Your task to perform on an android device: install app "Pinterest" Image 0: 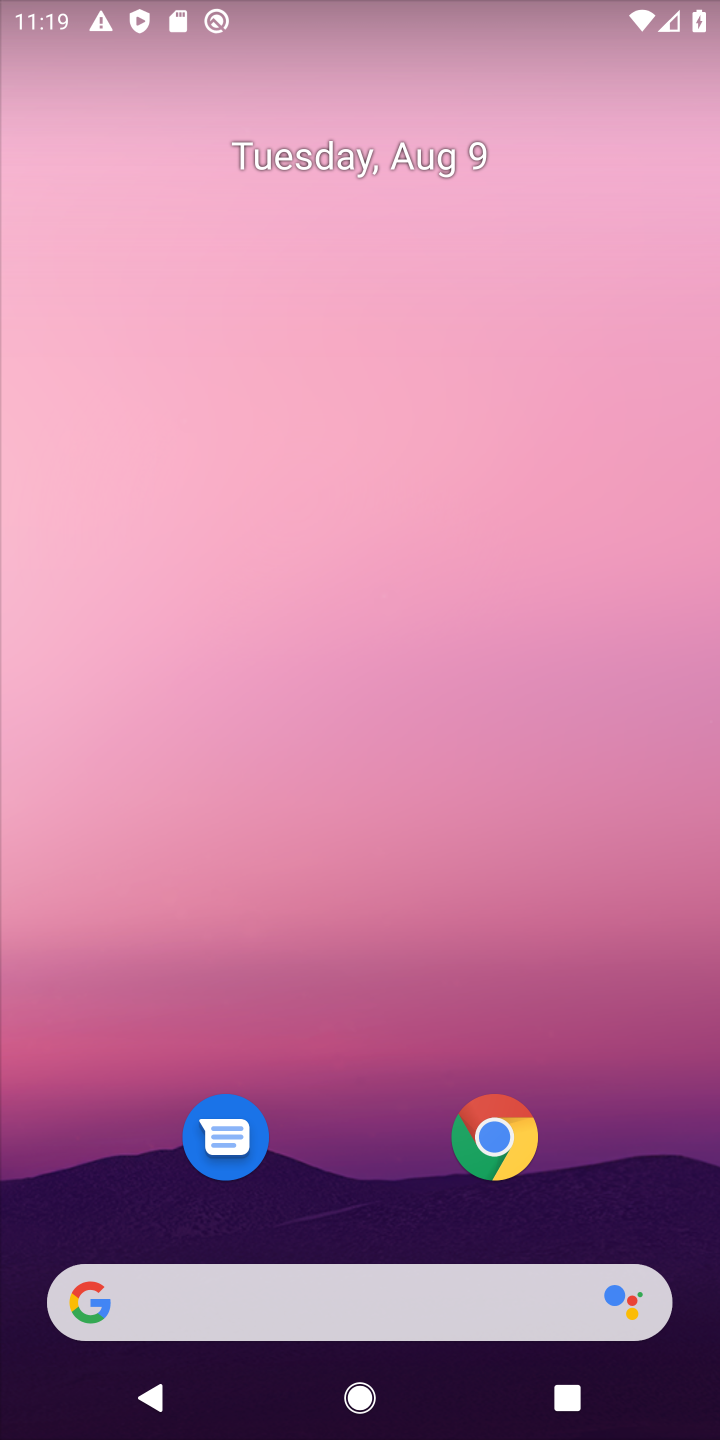
Step 0: drag from (657, 1200) to (295, 106)
Your task to perform on an android device: install app "Pinterest" Image 1: 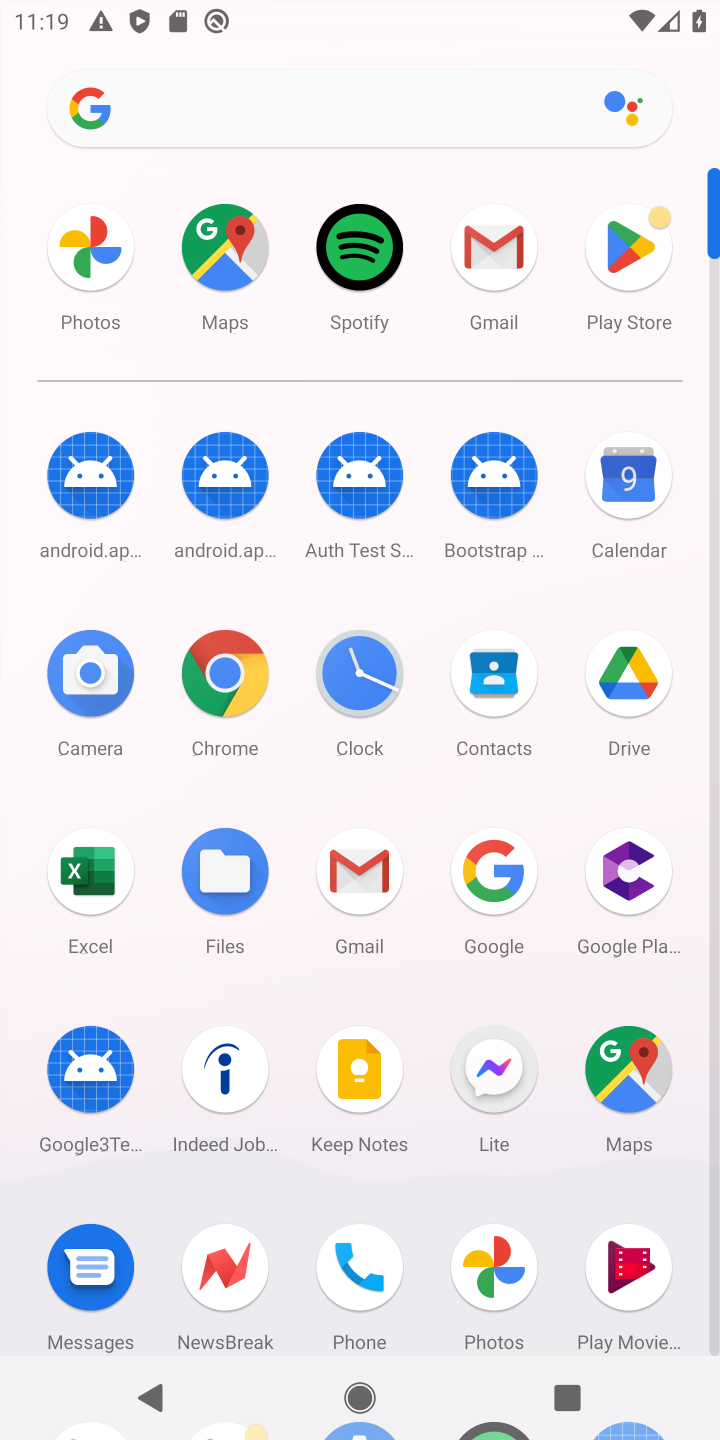
Step 1: click (614, 254)
Your task to perform on an android device: install app "Pinterest" Image 2: 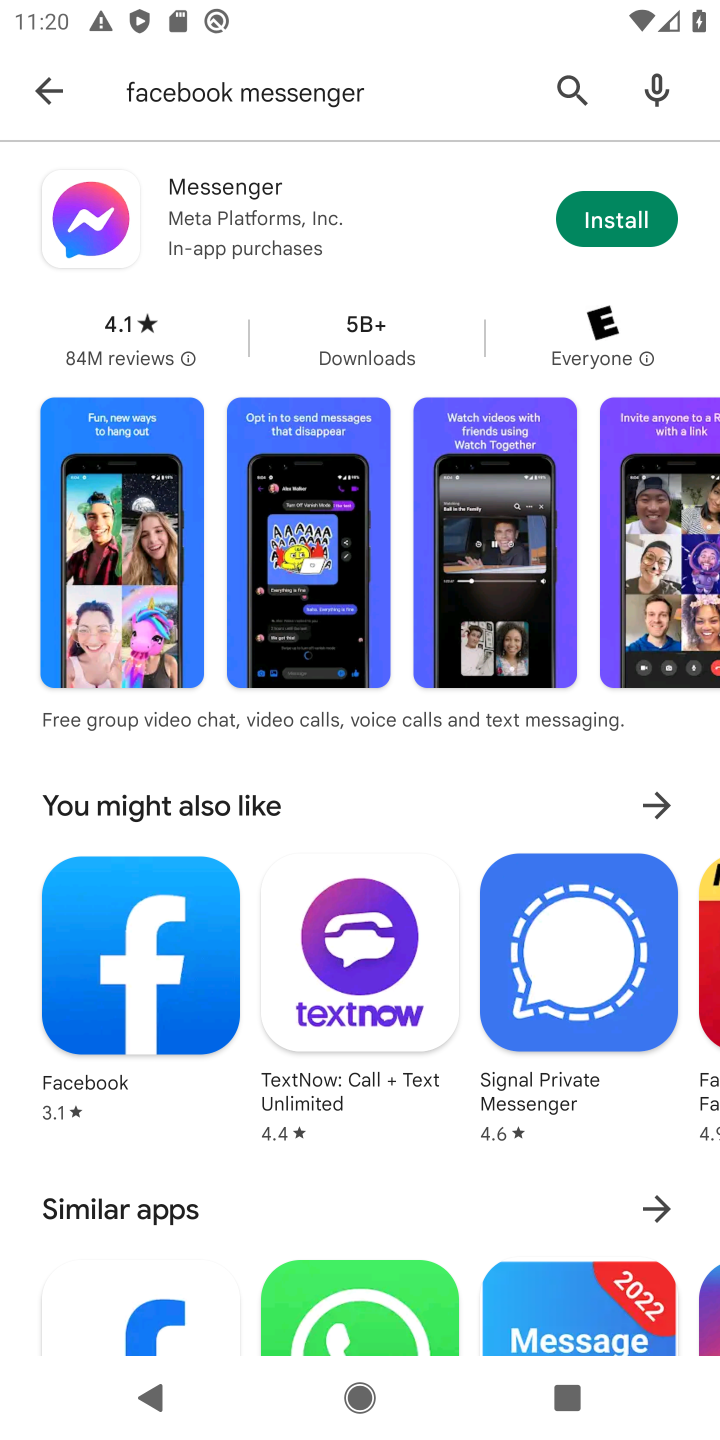
Step 2: press back button
Your task to perform on an android device: install app "Pinterest" Image 3: 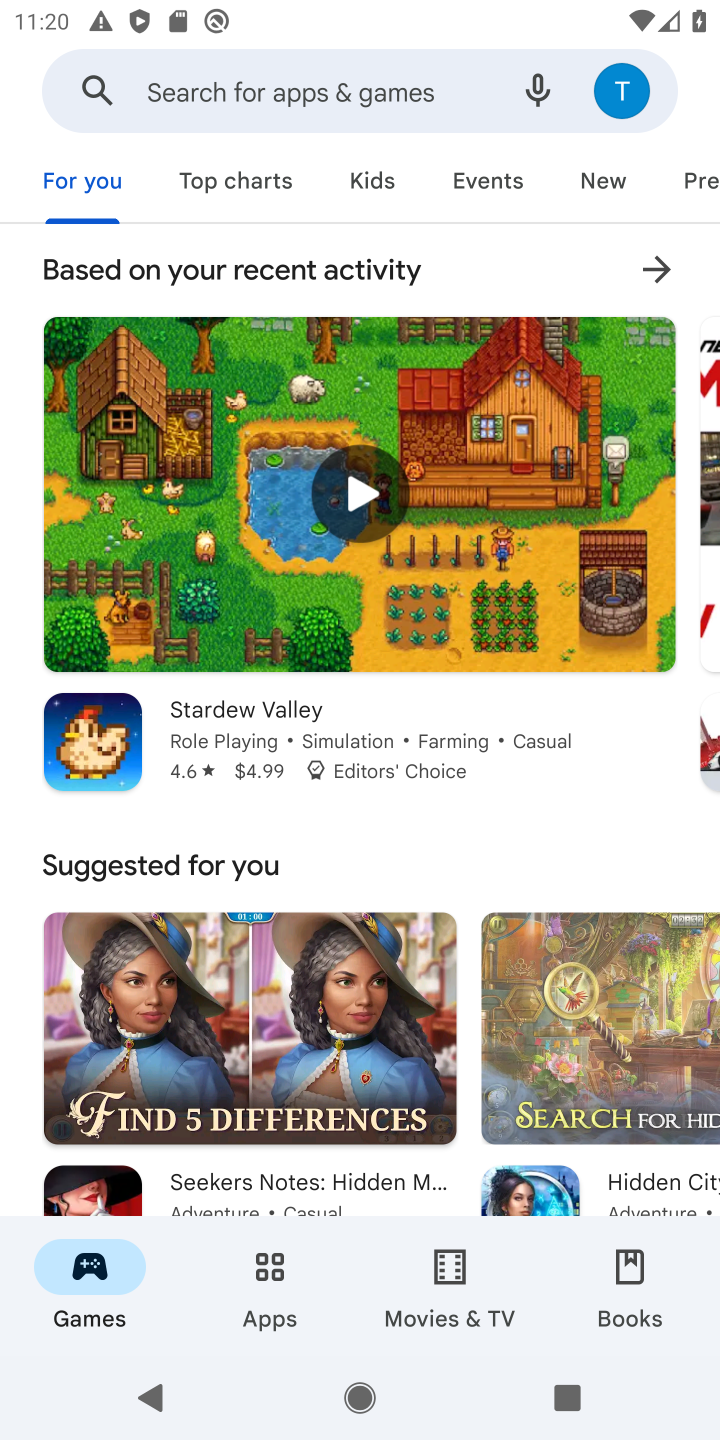
Step 3: click (241, 102)
Your task to perform on an android device: install app "Pinterest" Image 4: 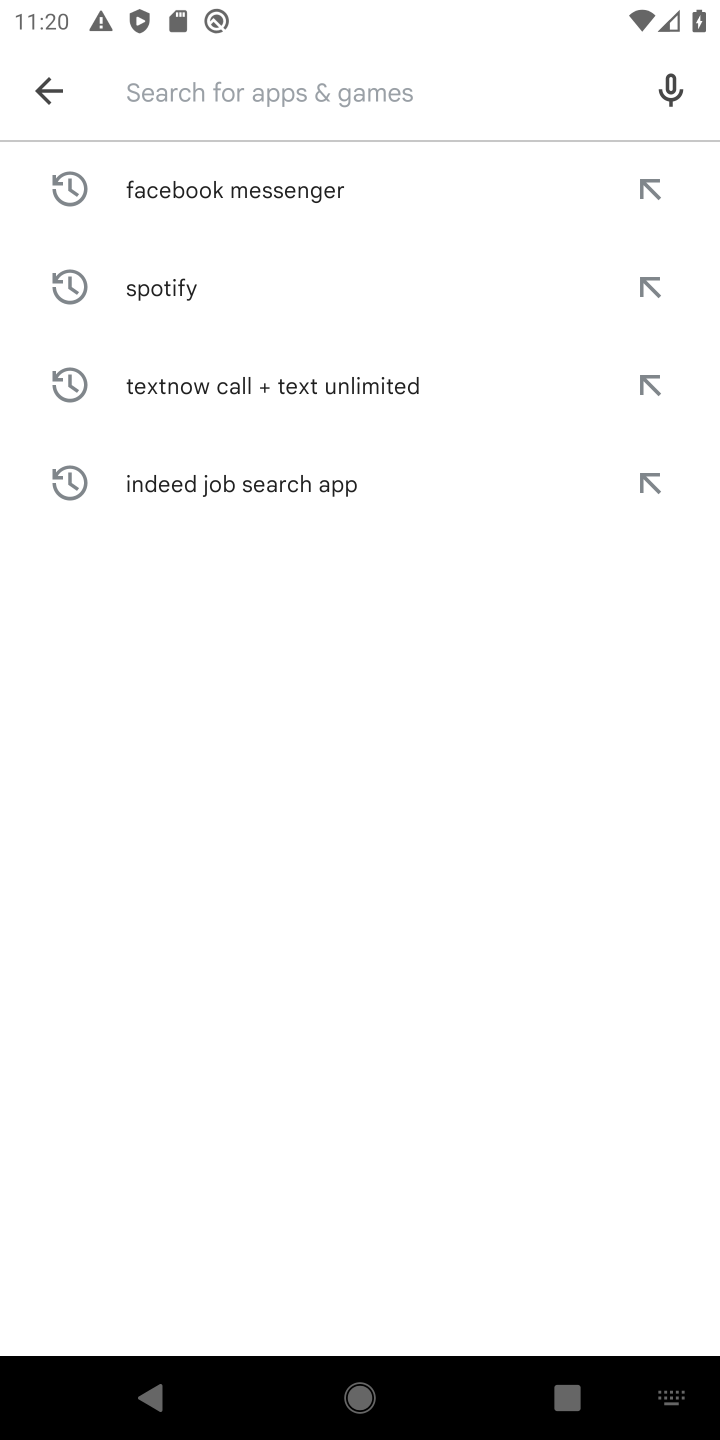
Step 4: type "Pinterest"
Your task to perform on an android device: install app "Pinterest" Image 5: 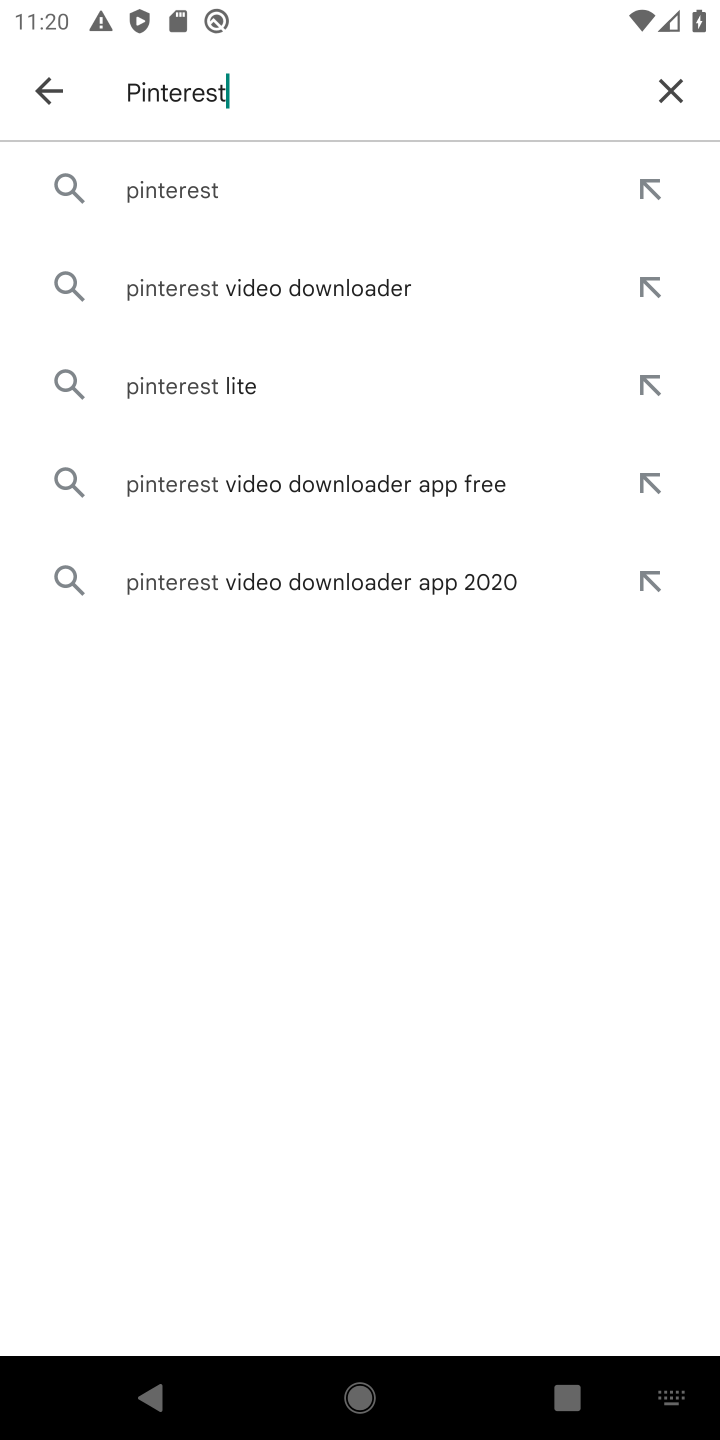
Step 5: click (273, 182)
Your task to perform on an android device: install app "Pinterest" Image 6: 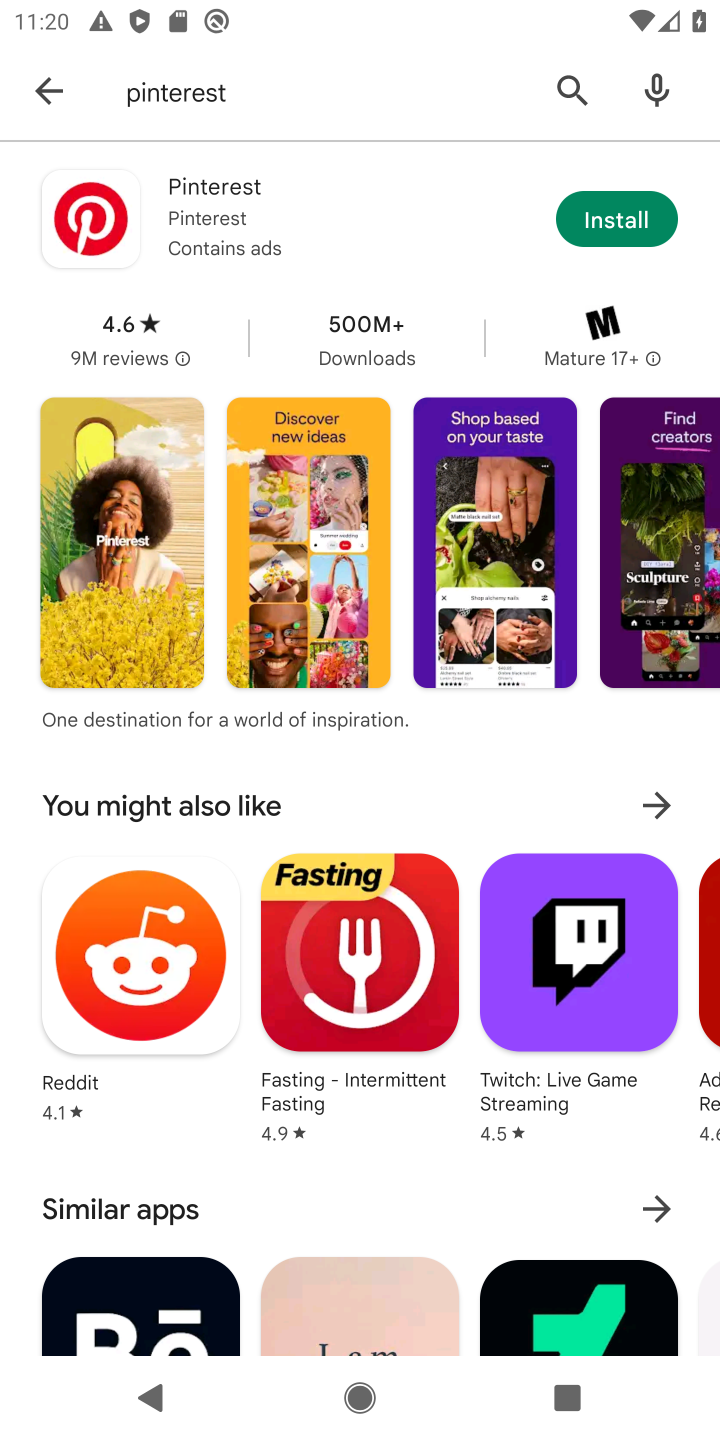
Step 6: click (609, 214)
Your task to perform on an android device: install app "Pinterest" Image 7: 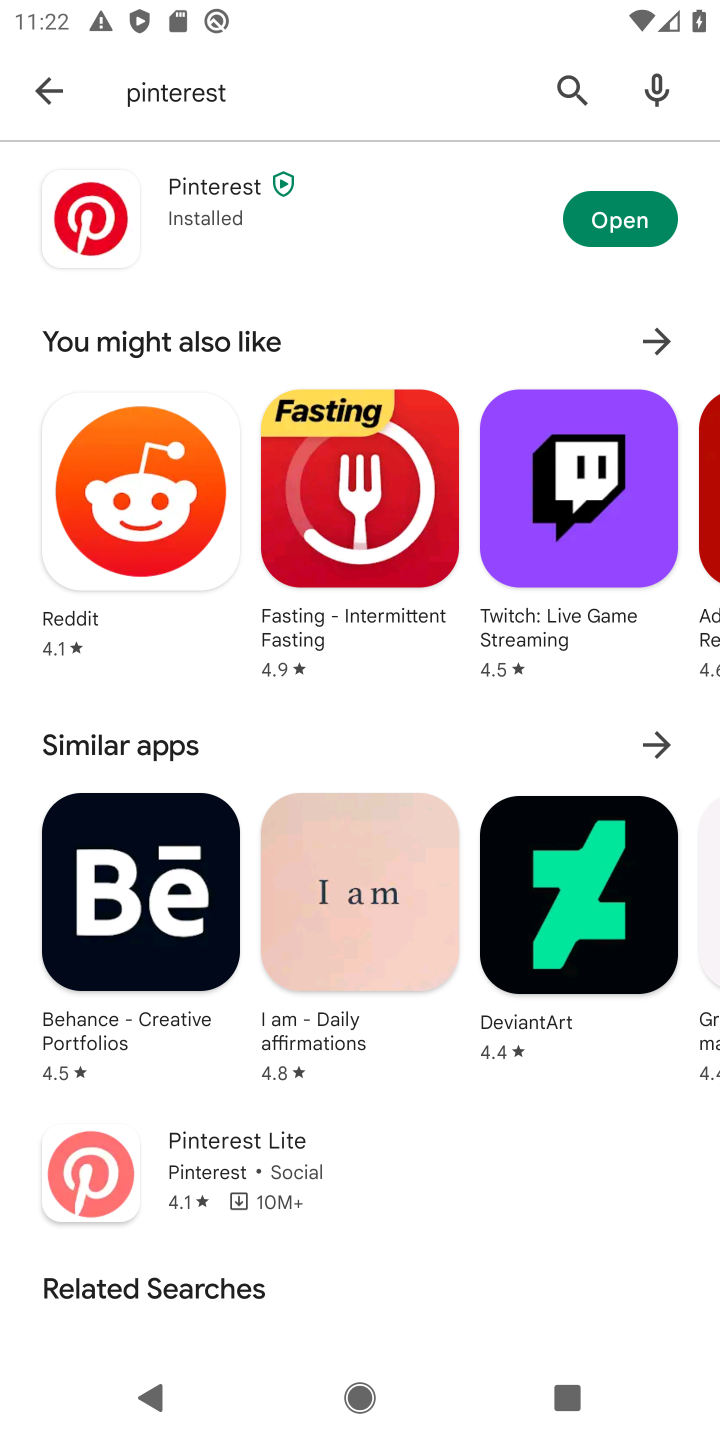
Step 7: task complete